Your task to perform on an android device: see creations saved in the google photos Image 0: 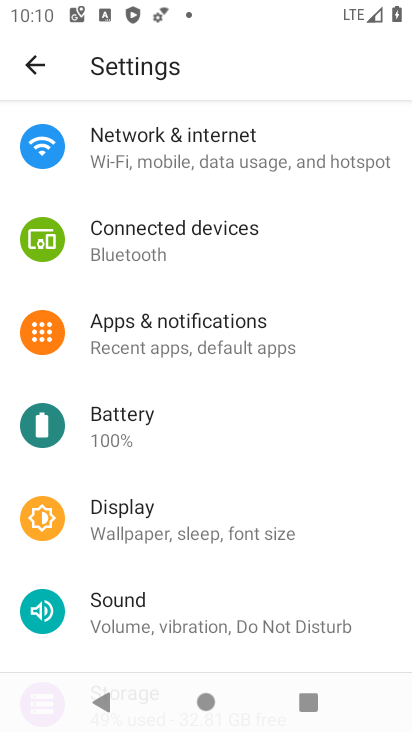
Step 0: press home button
Your task to perform on an android device: see creations saved in the google photos Image 1: 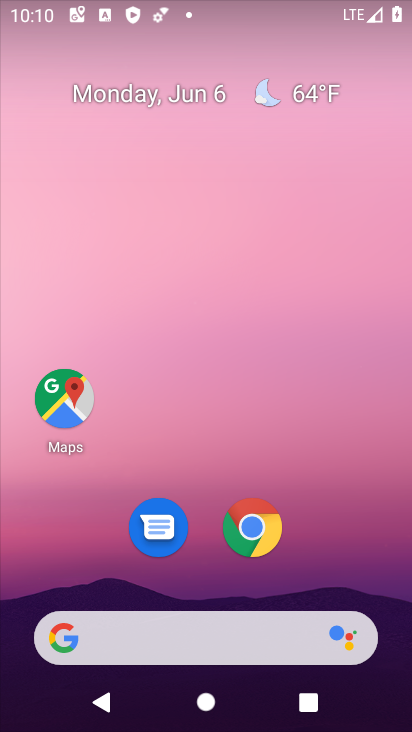
Step 1: drag from (207, 625) to (224, 228)
Your task to perform on an android device: see creations saved in the google photos Image 2: 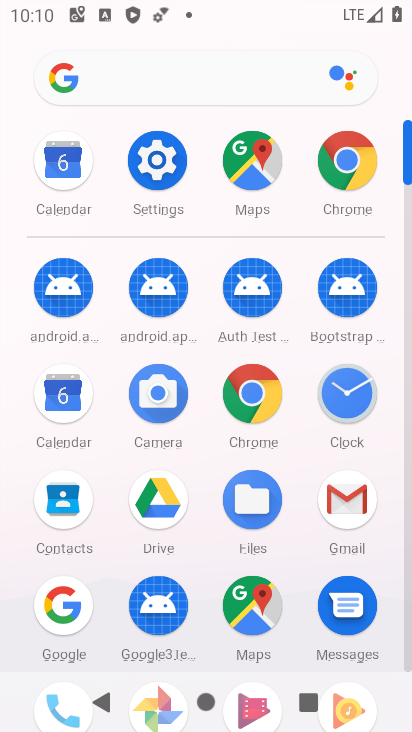
Step 2: drag from (258, 497) to (291, 258)
Your task to perform on an android device: see creations saved in the google photos Image 3: 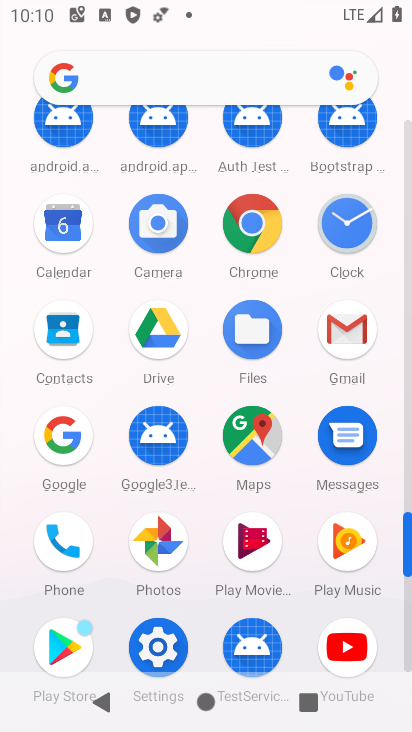
Step 3: click (172, 549)
Your task to perform on an android device: see creations saved in the google photos Image 4: 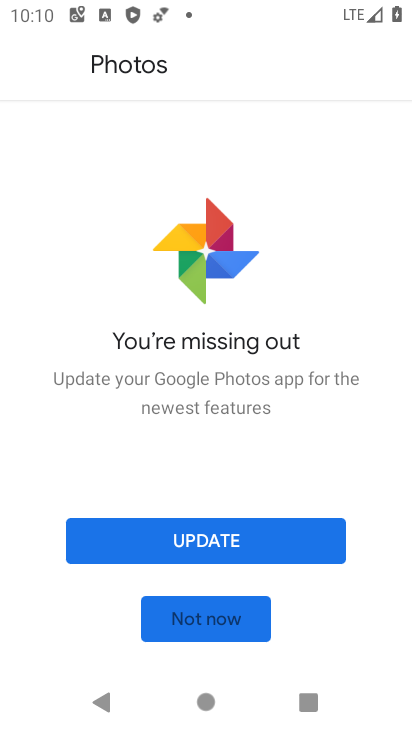
Step 4: click (201, 618)
Your task to perform on an android device: see creations saved in the google photos Image 5: 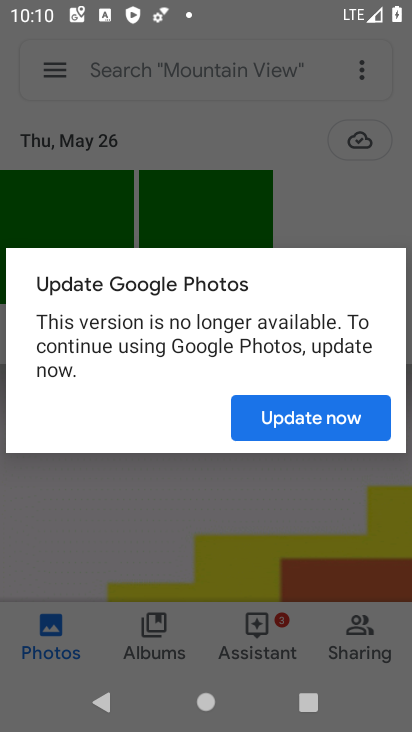
Step 5: press home button
Your task to perform on an android device: see creations saved in the google photos Image 6: 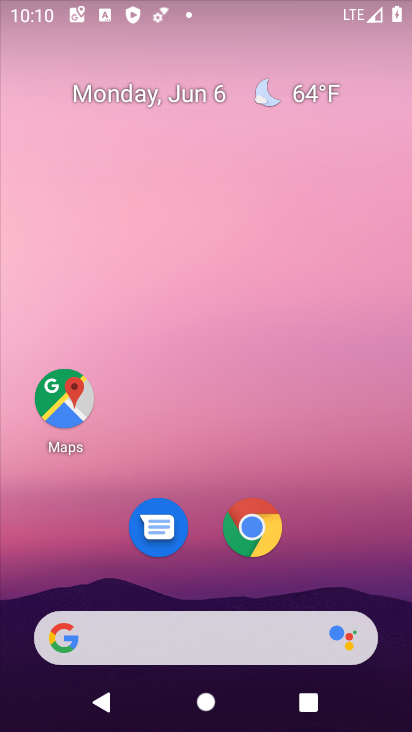
Step 6: drag from (202, 607) to (306, 128)
Your task to perform on an android device: see creations saved in the google photos Image 7: 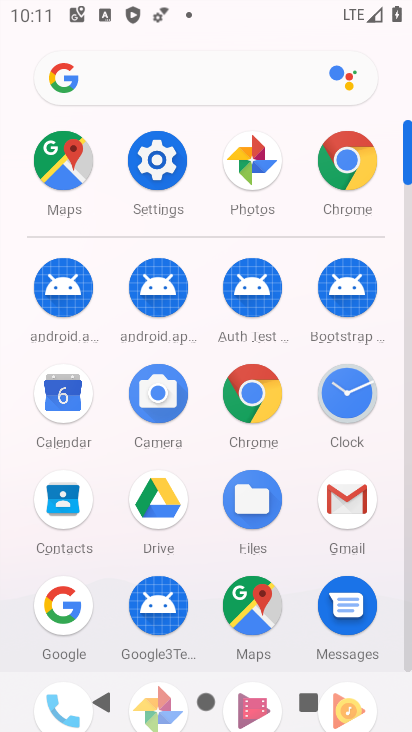
Step 7: drag from (243, 481) to (279, 234)
Your task to perform on an android device: see creations saved in the google photos Image 8: 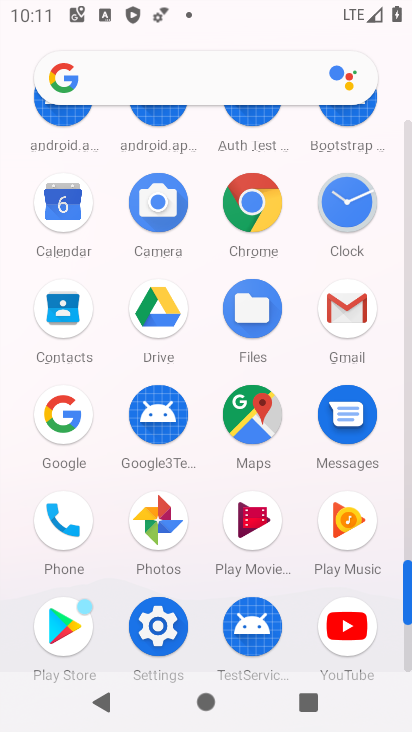
Step 8: click (160, 534)
Your task to perform on an android device: see creations saved in the google photos Image 9: 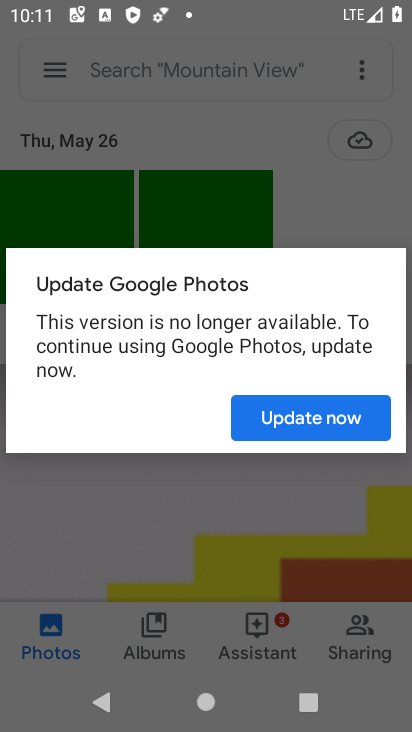
Step 9: task complete